Your task to perform on an android device: change notification settings in the gmail app Image 0: 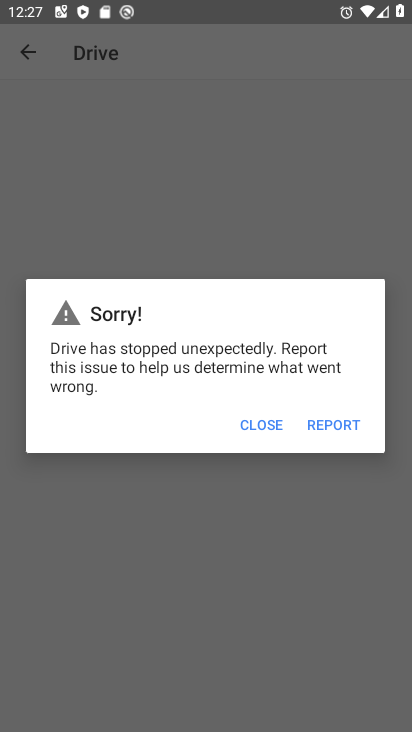
Step 0: press back button
Your task to perform on an android device: change notification settings in the gmail app Image 1: 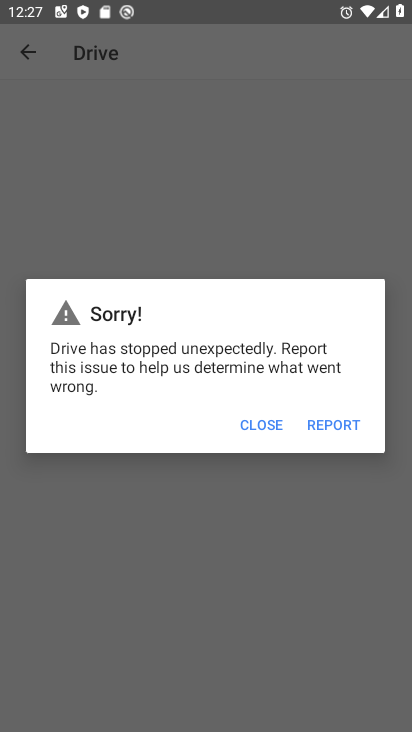
Step 1: press back button
Your task to perform on an android device: change notification settings in the gmail app Image 2: 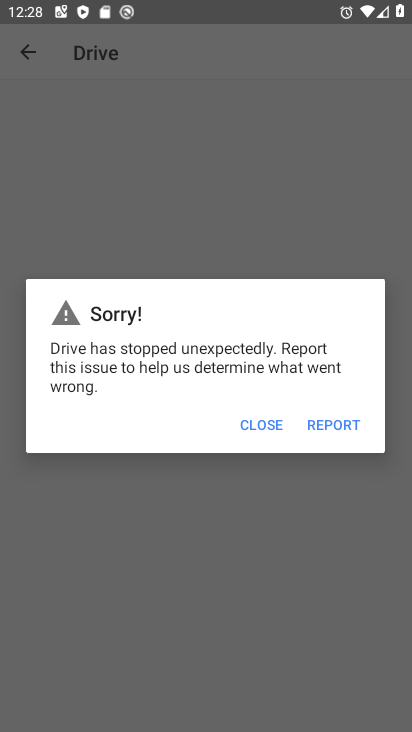
Step 2: press back button
Your task to perform on an android device: change notification settings in the gmail app Image 3: 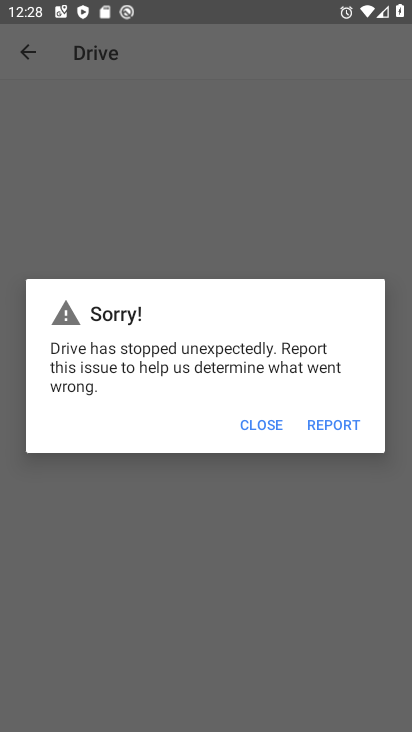
Step 3: press home button
Your task to perform on an android device: change notification settings in the gmail app Image 4: 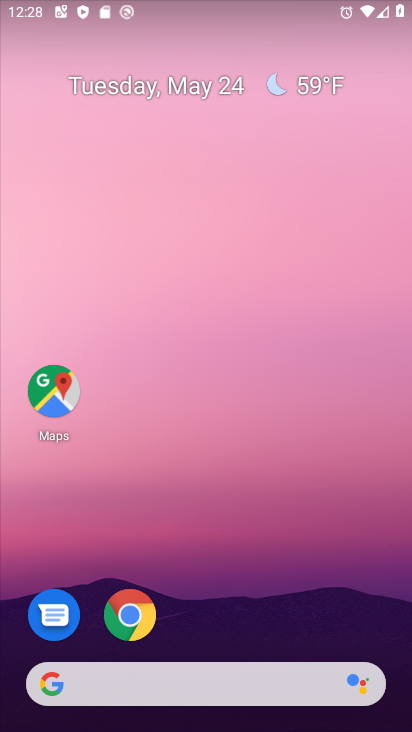
Step 4: drag from (248, 573) to (184, 89)
Your task to perform on an android device: change notification settings in the gmail app Image 5: 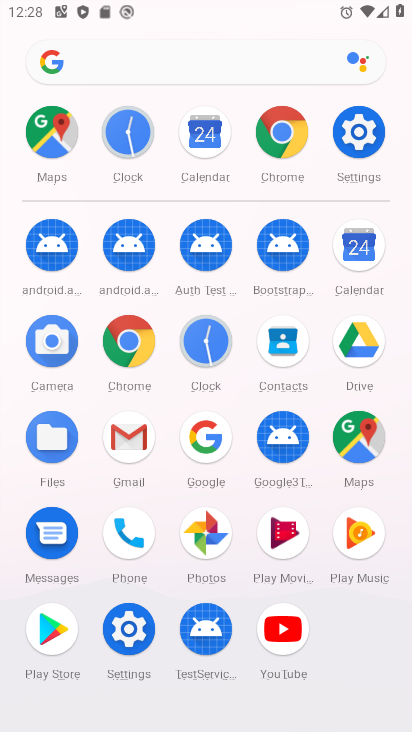
Step 5: drag from (12, 622) to (10, 277)
Your task to perform on an android device: change notification settings in the gmail app Image 6: 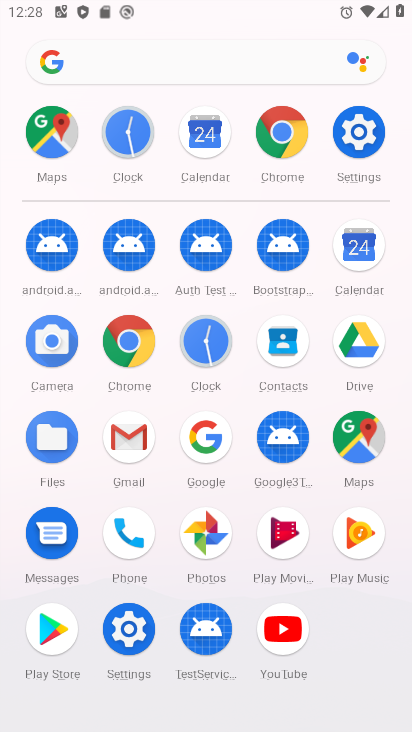
Step 6: click (357, 136)
Your task to perform on an android device: change notification settings in the gmail app Image 7: 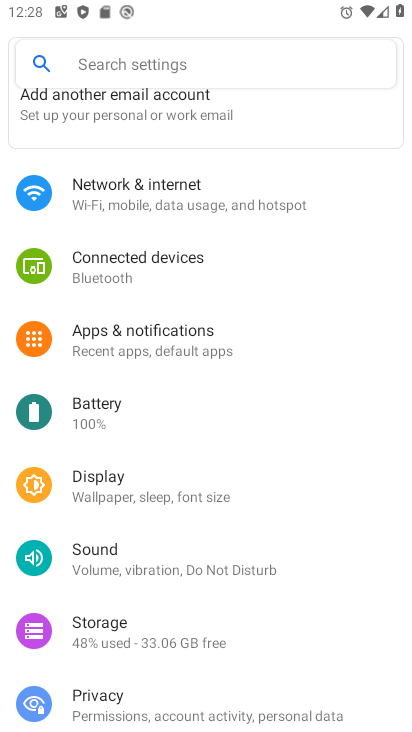
Step 7: drag from (179, 584) to (176, 186)
Your task to perform on an android device: change notification settings in the gmail app Image 8: 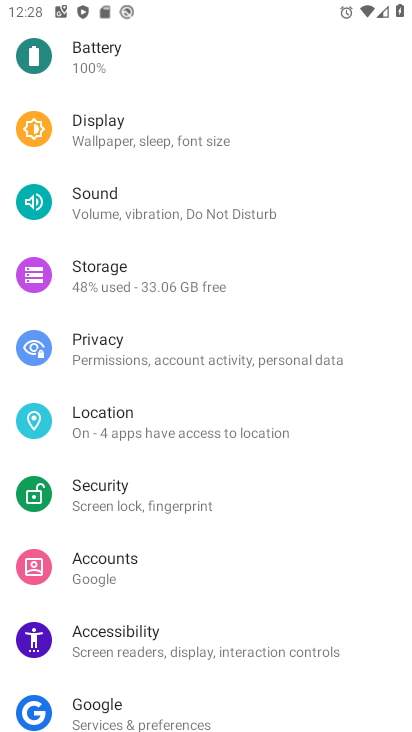
Step 8: drag from (154, 560) to (210, 121)
Your task to perform on an android device: change notification settings in the gmail app Image 9: 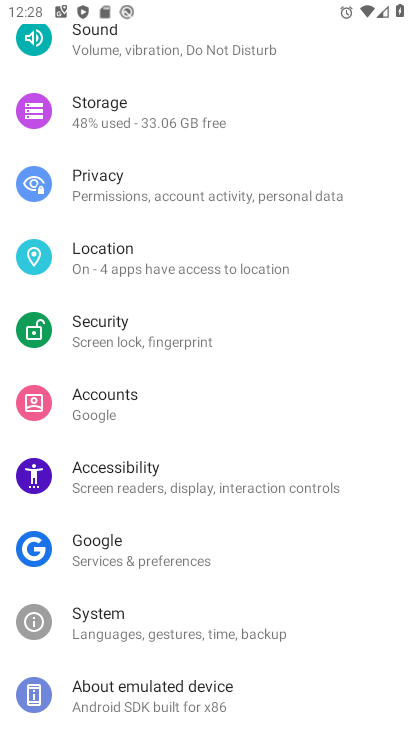
Step 9: drag from (230, 149) to (296, 640)
Your task to perform on an android device: change notification settings in the gmail app Image 10: 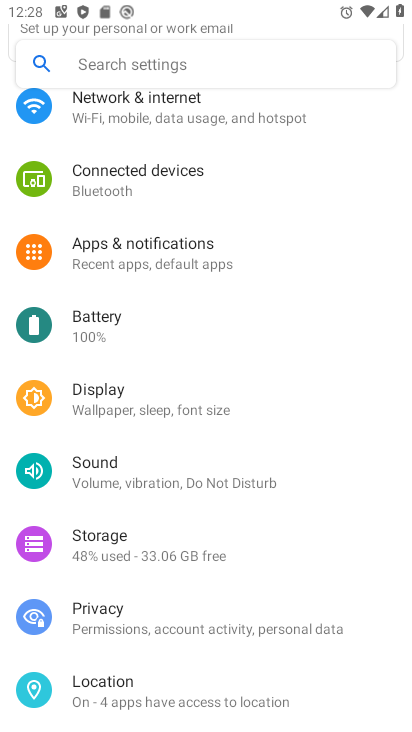
Step 10: click (154, 253)
Your task to perform on an android device: change notification settings in the gmail app Image 11: 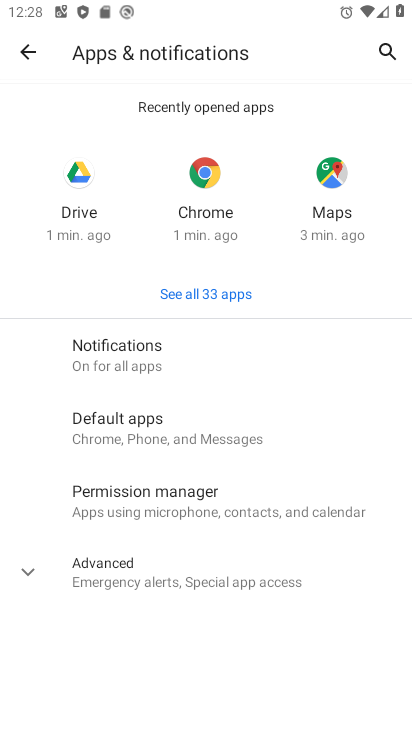
Step 11: click (21, 569)
Your task to perform on an android device: change notification settings in the gmail app Image 12: 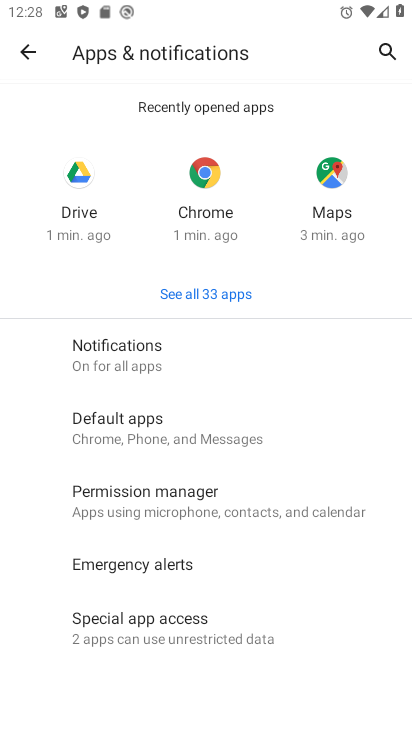
Step 12: click (169, 357)
Your task to perform on an android device: change notification settings in the gmail app Image 13: 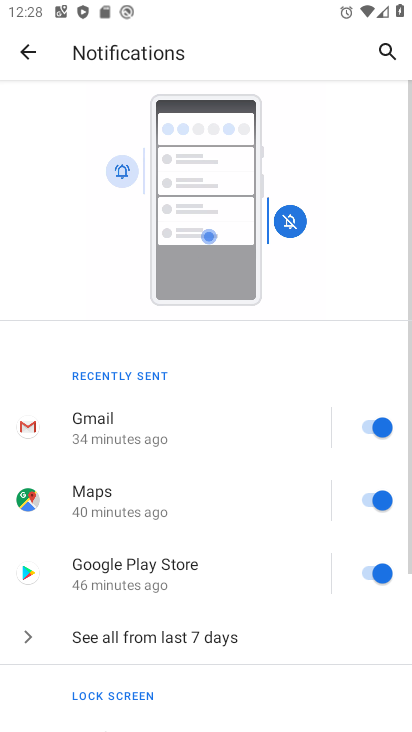
Step 13: drag from (173, 570) to (229, 97)
Your task to perform on an android device: change notification settings in the gmail app Image 14: 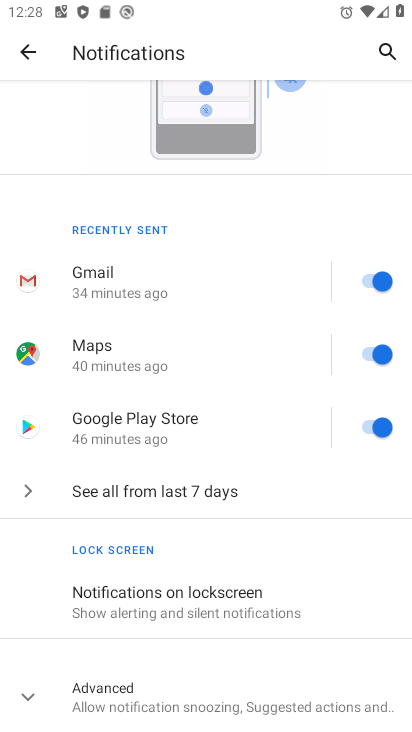
Step 14: click (25, 701)
Your task to perform on an android device: change notification settings in the gmail app Image 15: 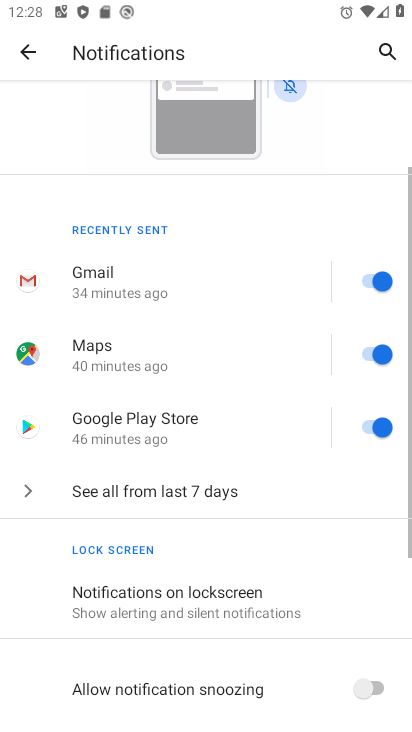
Step 15: drag from (229, 575) to (221, 137)
Your task to perform on an android device: change notification settings in the gmail app Image 16: 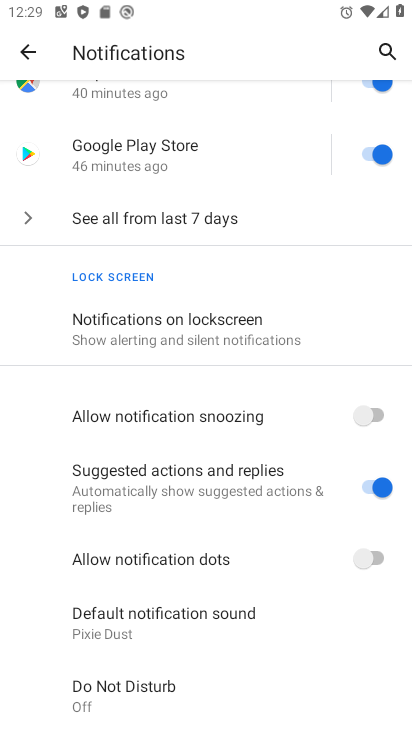
Step 16: click (206, 332)
Your task to perform on an android device: change notification settings in the gmail app Image 17: 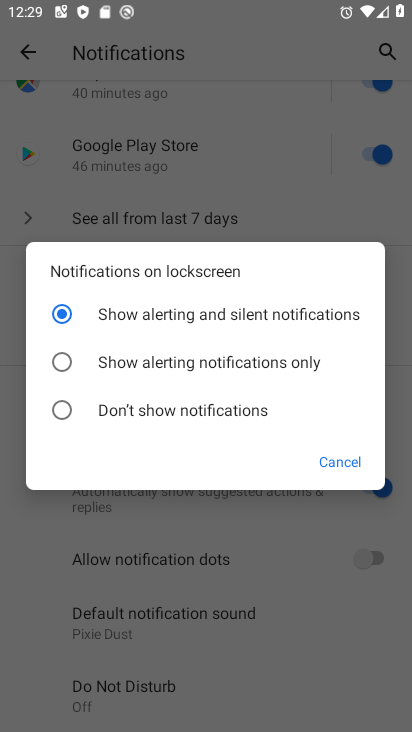
Step 17: click (173, 318)
Your task to perform on an android device: change notification settings in the gmail app Image 18: 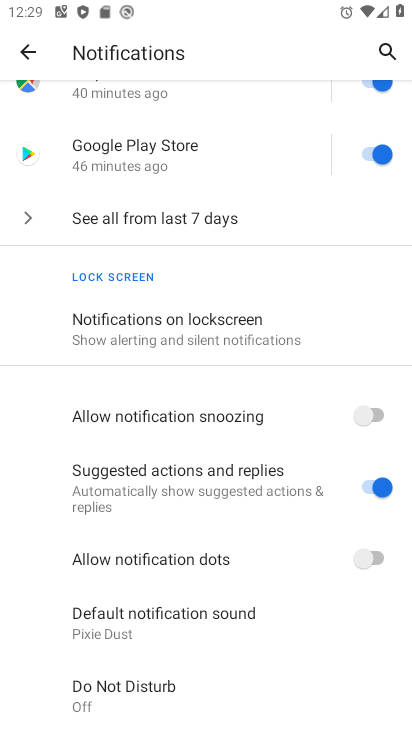
Step 18: task complete